Your task to perform on an android device: Open display settings Image 0: 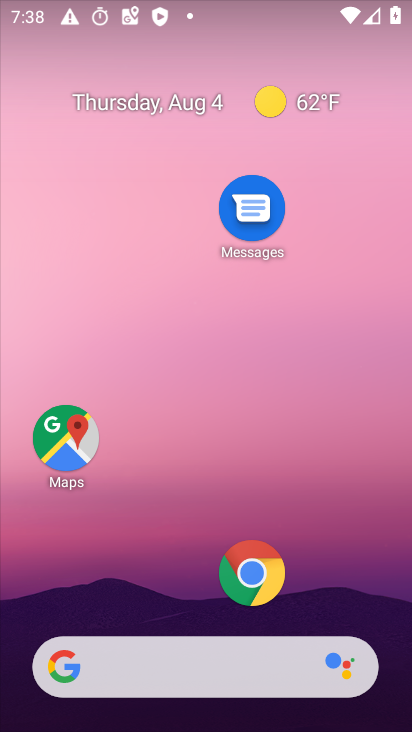
Step 0: press home button
Your task to perform on an android device: Open display settings Image 1: 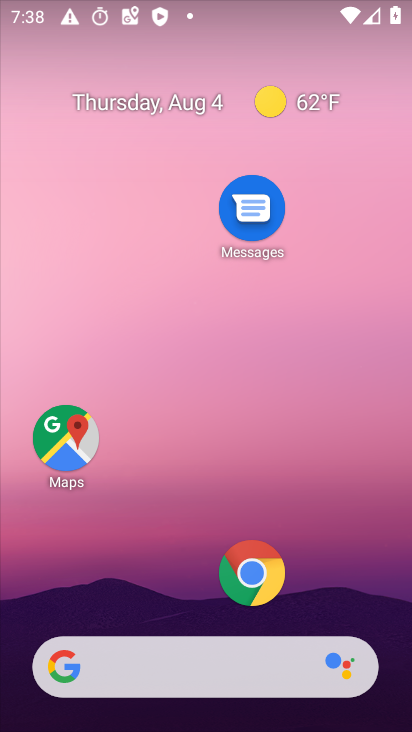
Step 1: drag from (171, 557) to (190, 144)
Your task to perform on an android device: Open display settings Image 2: 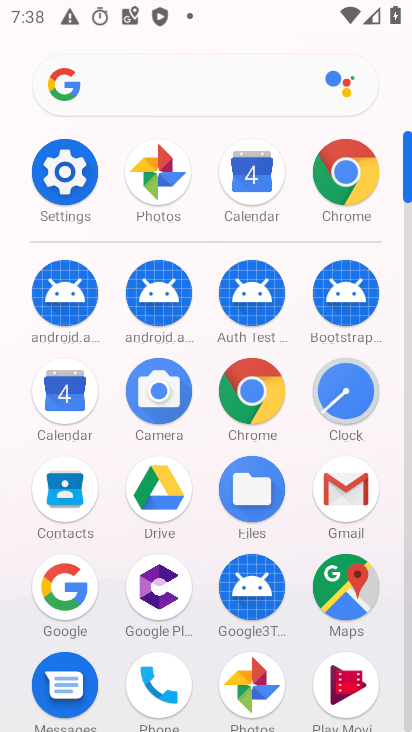
Step 2: click (67, 178)
Your task to perform on an android device: Open display settings Image 3: 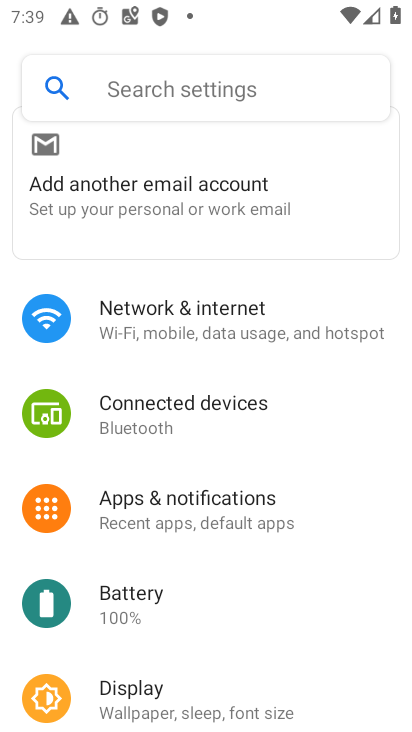
Step 3: drag from (308, 606) to (293, 359)
Your task to perform on an android device: Open display settings Image 4: 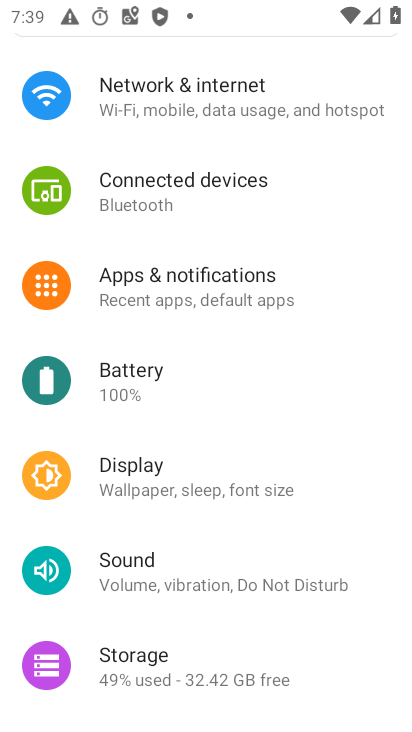
Step 4: click (146, 481)
Your task to perform on an android device: Open display settings Image 5: 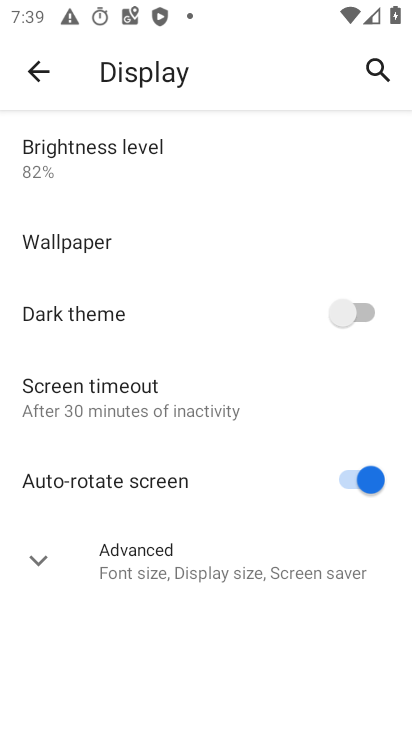
Step 5: task complete